Your task to perform on an android device: Open Chrome and go to settings Image 0: 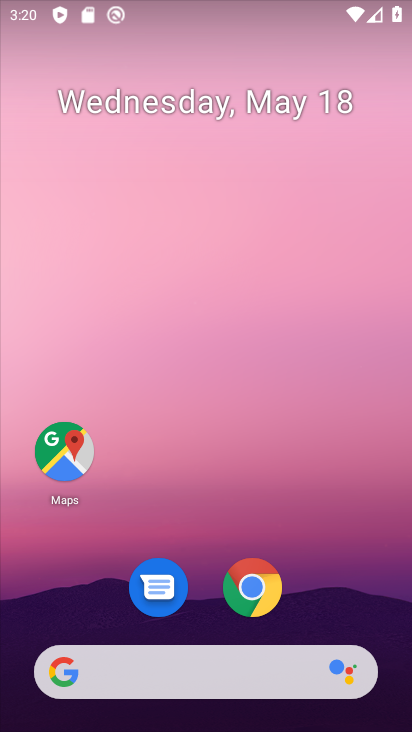
Step 0: click (265, 592)
Your task to perform on an android device: Open Chrome and go to settings Image 1: 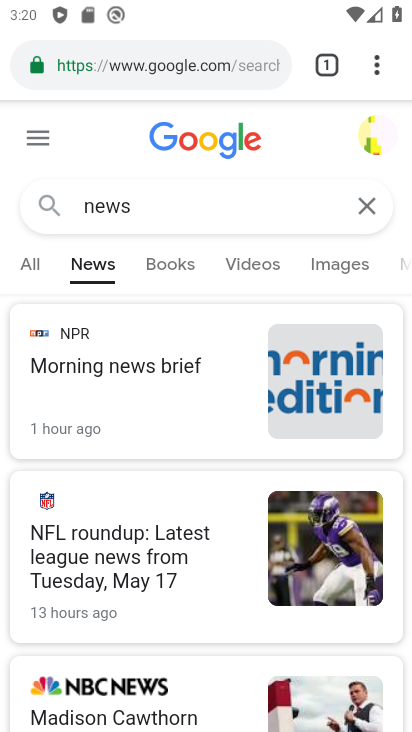
Step 1: task complete